Your task to perform on an android device: open wifi settings Image 0: 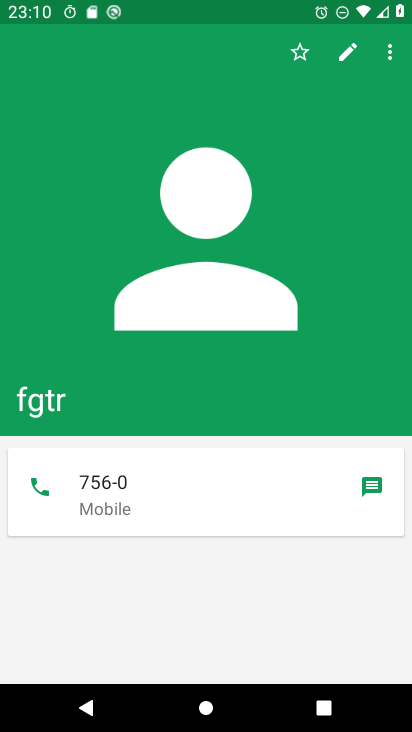
Step 0: press home button
Your task to perform on an android device: open wifi settings Image 1: 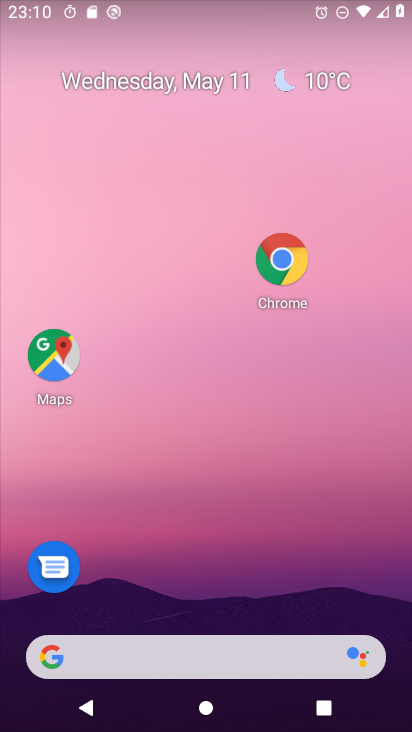
Step 1: drag from (165, 650) to (328, 87)
Your task to perform on an android device: open wifi settings Image 2: 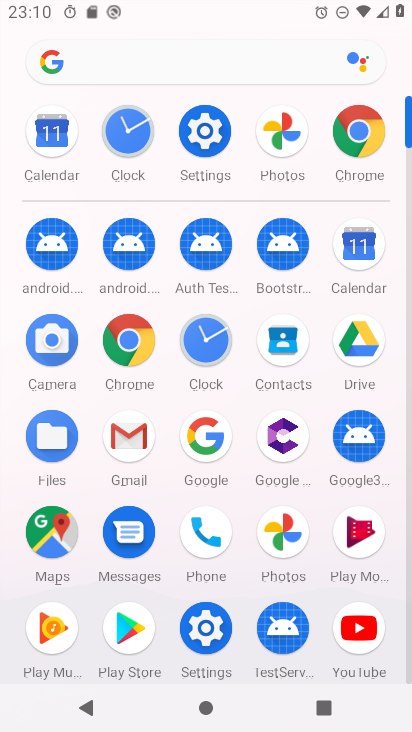
Step 2: click (205, 132)
Your task to perform on an android device: open wifi settings Image 3: 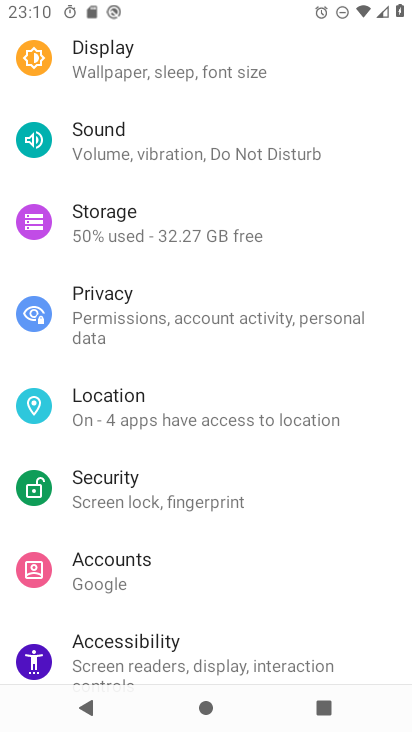
Step 3: drag from (309, 85) to (211, 549)
Your task to perform on an android device: open wifi settings Image 4: 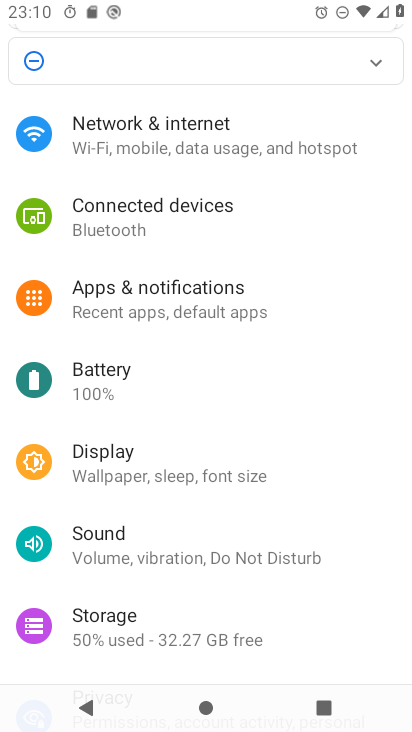
Step 4: click (175, 136)
Your task to perform on an android device: open wifi settings Image 5: 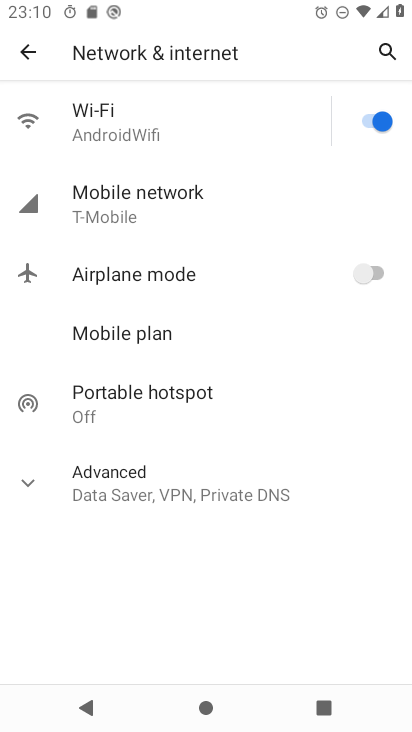
Step 5: click (134, 130)
Your task to perform on an android device: open wifi settings Image 6: 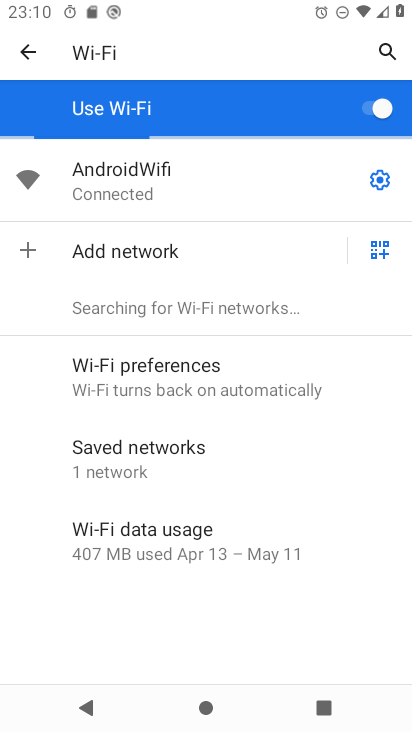
Step 6: task complete